Your task to perform on an android device: Do I have any events this weekend? Image 0: 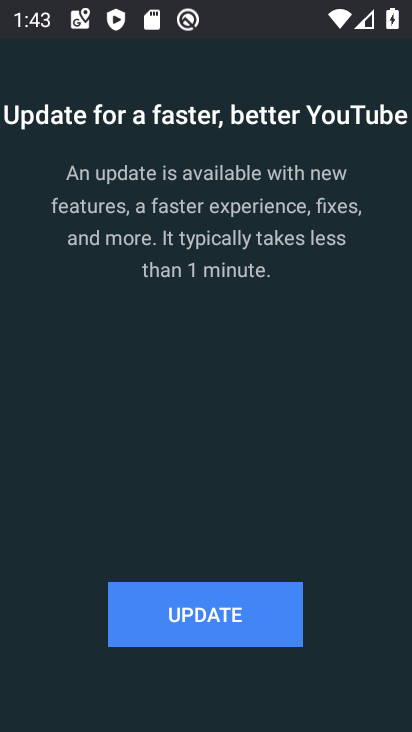
Step 0: press home button
Your task to perform on an android device: Do I have any events this weekend? Image 1: 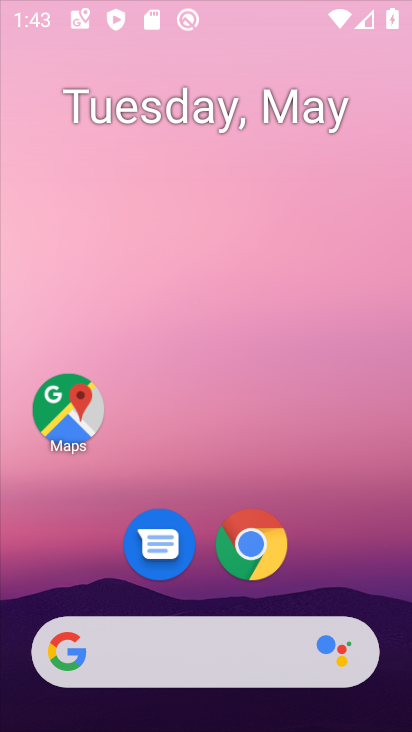
Step 1: drag from (353, 530) to (366, 77)
Your task to perform on an android device: Do I have any events this weekend? Image 2: 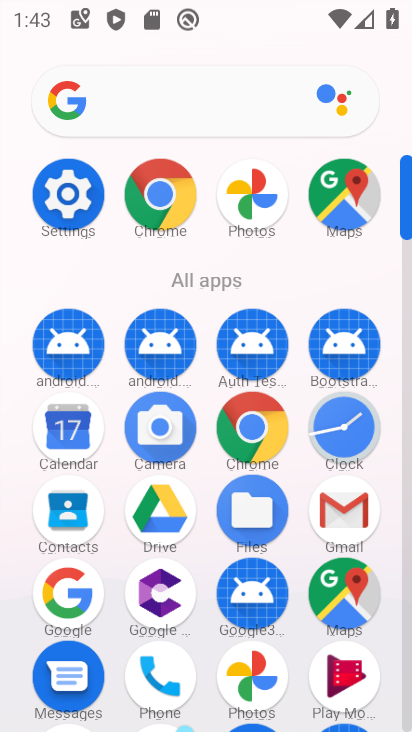
Step 2: click (82, 427)
Your task to perform on an android device: Do I have any events this weekend? Image 3: 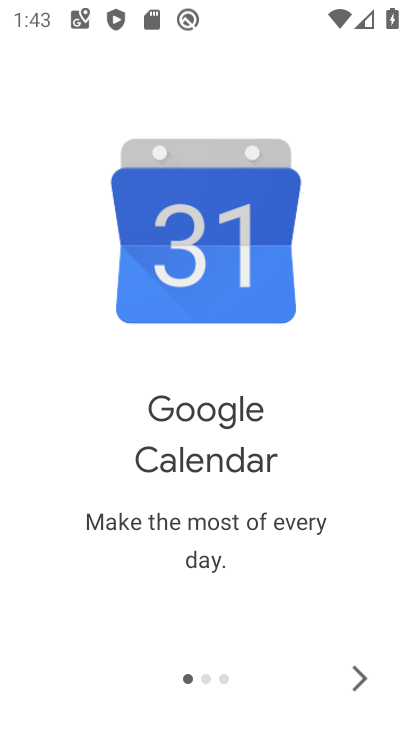
Step 3: click (362, 672)
Your task to perform on an android device: Do I have any events this weekend? Image 4: 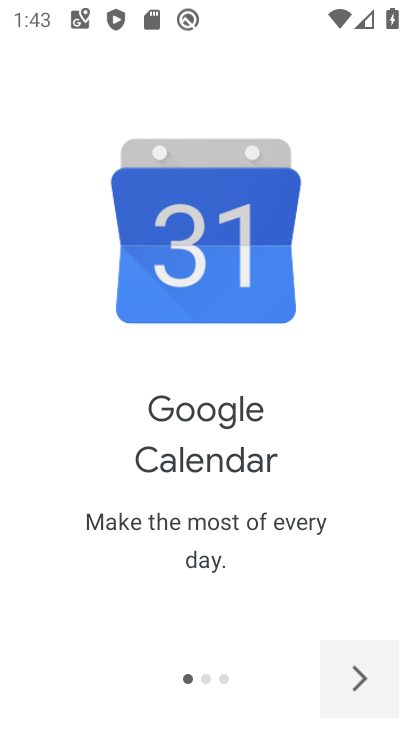
Step 4: click (362, 674)
Your task to perform on an android device: Do I have any events this weekend? Image 5: 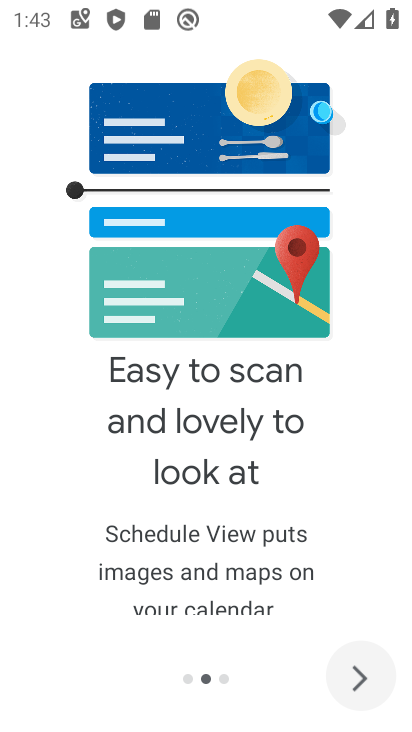
Step 5: click (362, 674)
Your task to perform on an android device: Do I have any events this weekend? Image 6: 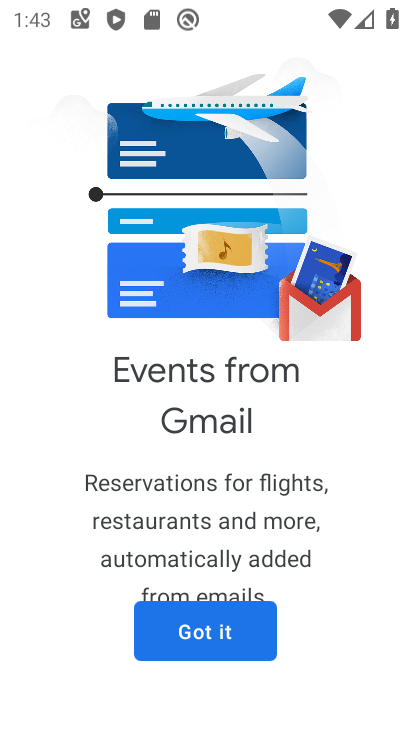
Step 6: click (362, 674)
Your task to perform on an android device: Do I have any events this weekend? Image 7: 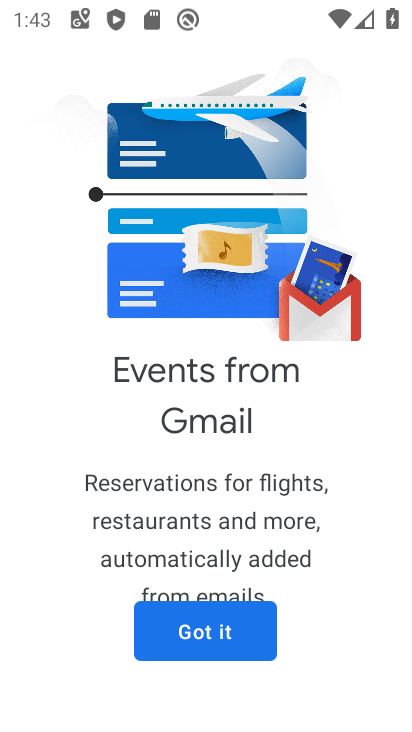
Step 7: click (219, 654)
Your task to perform on an android device: Do I have any events this weekend? Image 8: 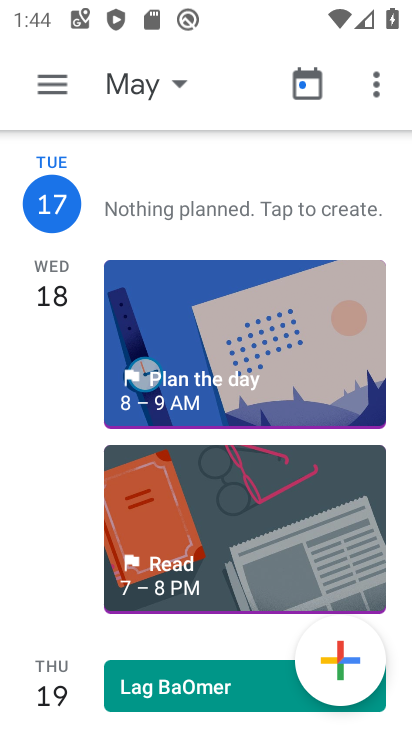
Step 8: click (71, 84)
Your task to perform on an android device: Do I have any events this weekend? Image 9: 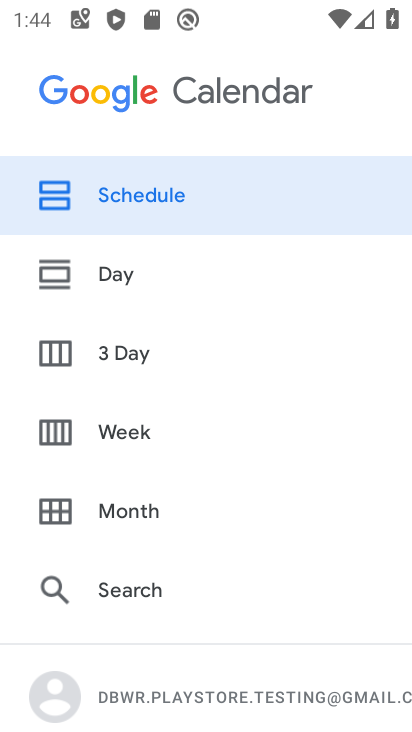
Step 9: click (129, 445)
Your task to perform on an android device: Do I have any events this weekend? Image 10: 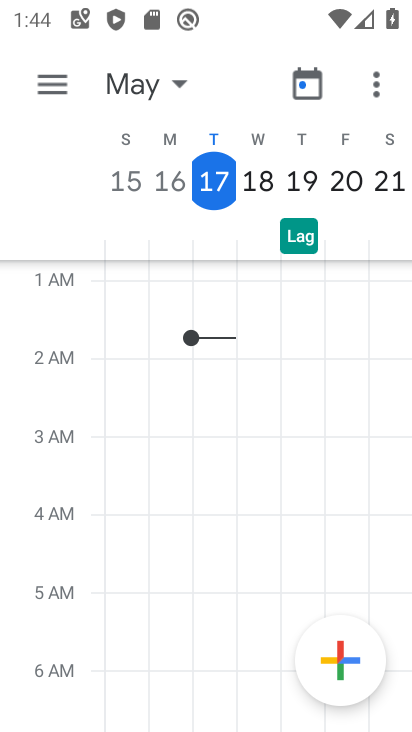
Step 10: click (41, 95)
Your task to perform on an android device: Do I have any events this weekend? Image 11: 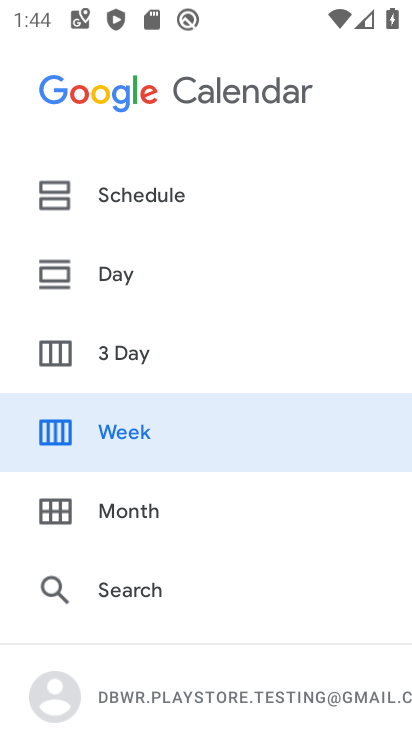
Step 11: click (94, 352)
Your task to perform on an android device: Do I have any events this weekend? Image 12: 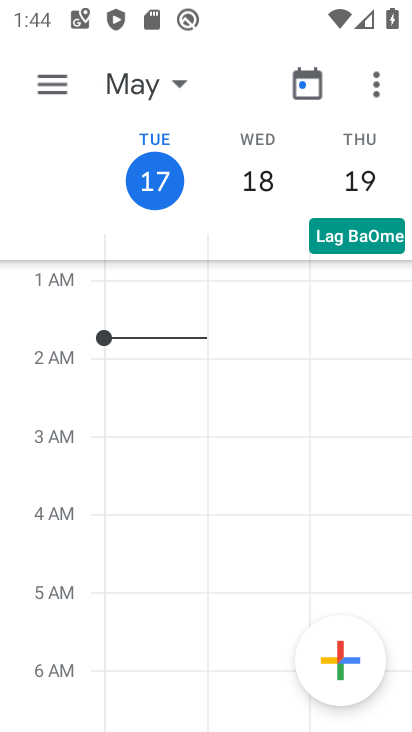
Step 12: task complete